Your task to perform on an android device: Go to privacy settings Image 0: 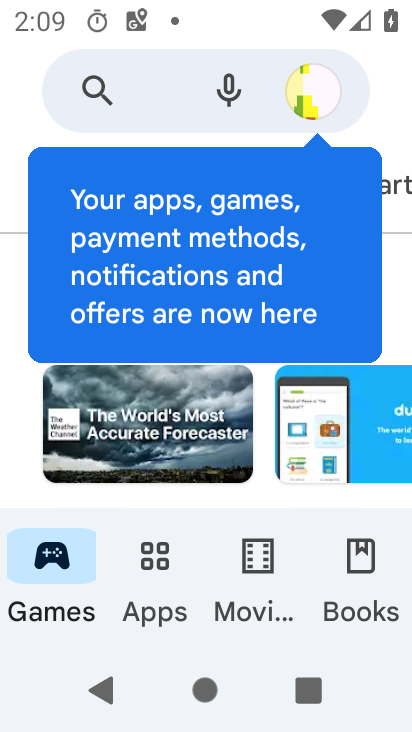
Step 0: press home button
Your task to perform on an android device: Go to privacy settings Image 1: 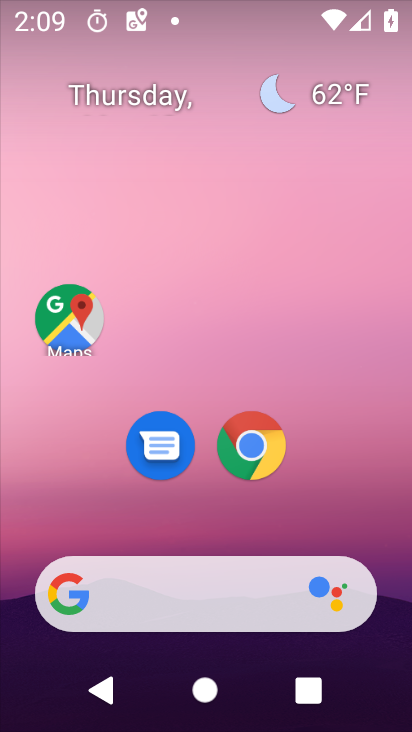
Step 1: drag from (225, 586) to (254, 169)
Your task to perform on an android device: Go to privacy settings Image 2: 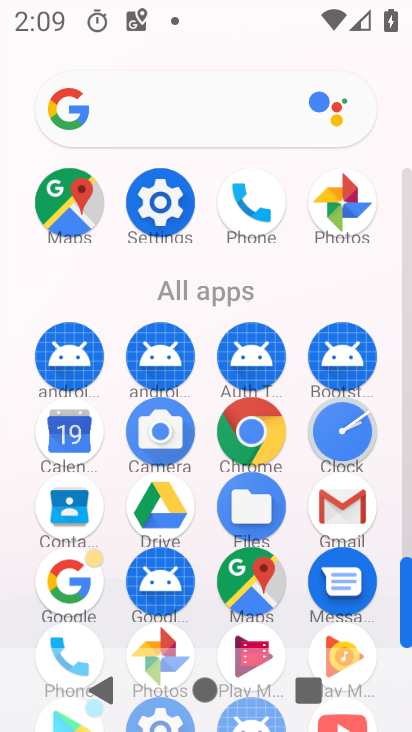
Step 2: click (152, 215)
Your task to perform on an android device: Go to privacy settings Image 3: 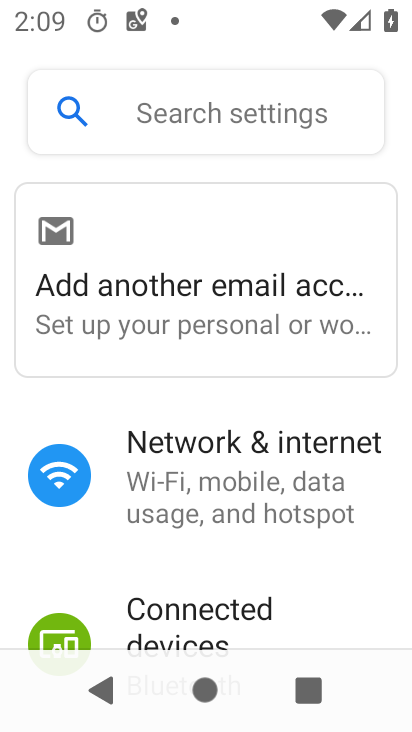
Step 3: drag from (286, 627) to (267, 101)
Your task to perform on an android device: Go to privacy settings Image 4: 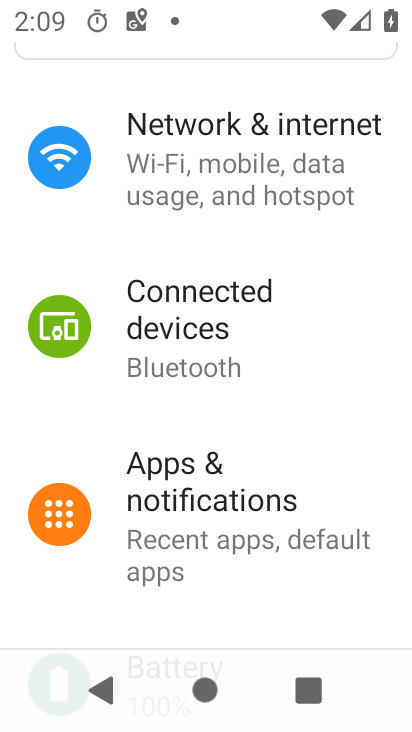
Step 4: drag from (324, 546) to (303, 219)
Your task to perform on an android device: Go to privacy settings Image 5: 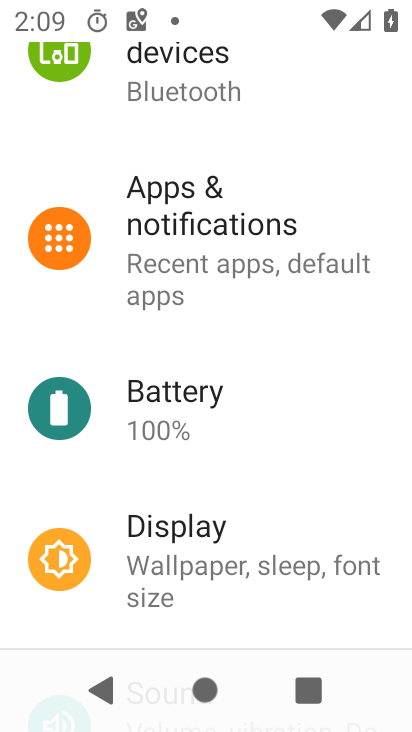
Step 5: drag from (209, 502) to (250, 114)
Your task to perform on an android device: Go to privacy settings Image 6: 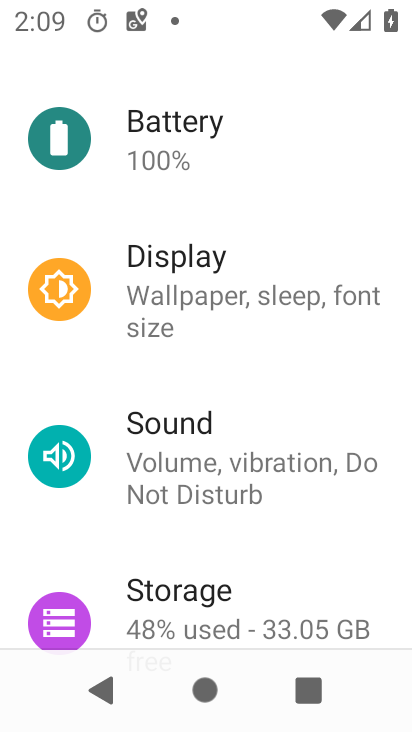
Step 6: drag from (242, 529) to (256, 106)
Your task to perform on an android device: Go to privacy settings Image 7: 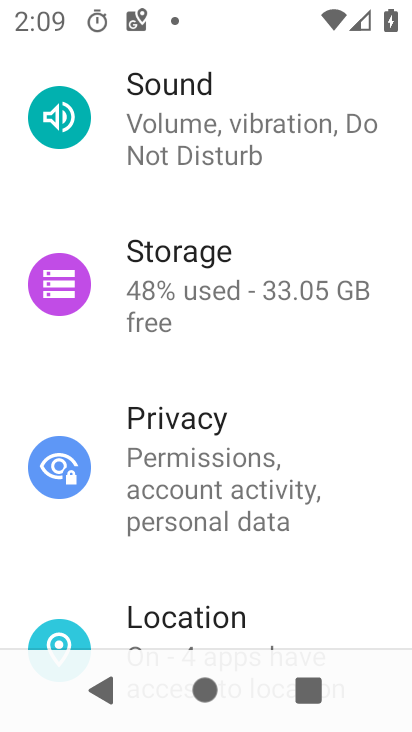
Step 7: drag from (190, 586) to (199, 276)
Your task to perform on an android device: Go to privacy settings Image 8: 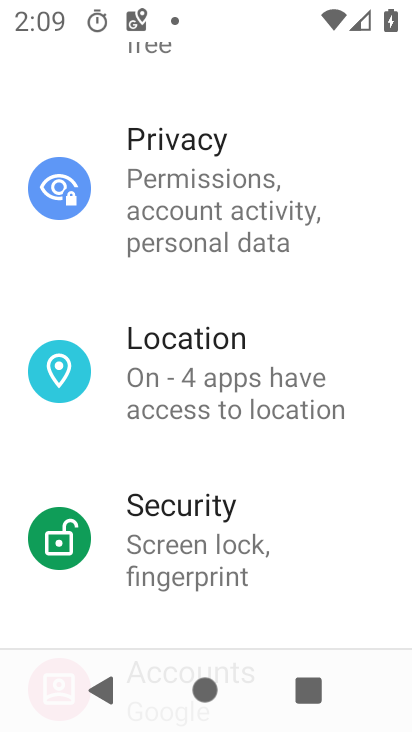
Step 8: click (194, 217)
Your task to perform on an android device: Go to privacy settings Image 9: 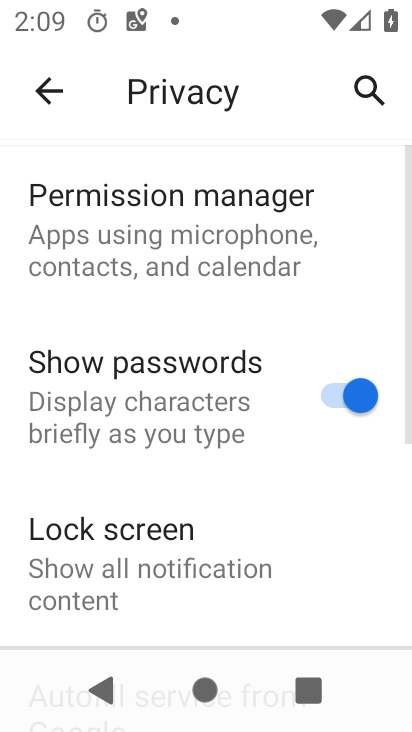
Step 9: task complete